Your task to perform on an android device: Open Google Maps Image 0: 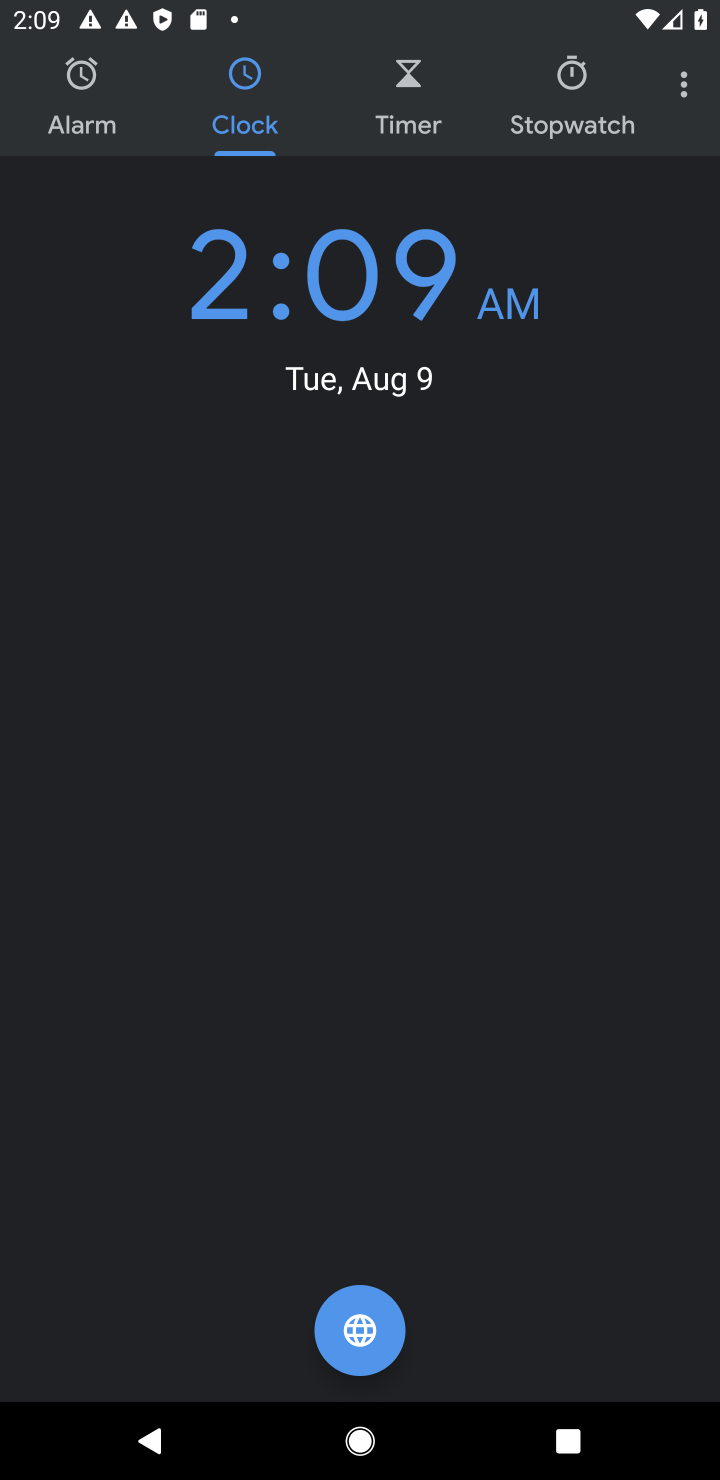
Step 0: press home button
Your task to perform on an android device: Open Google Maps Image 1: 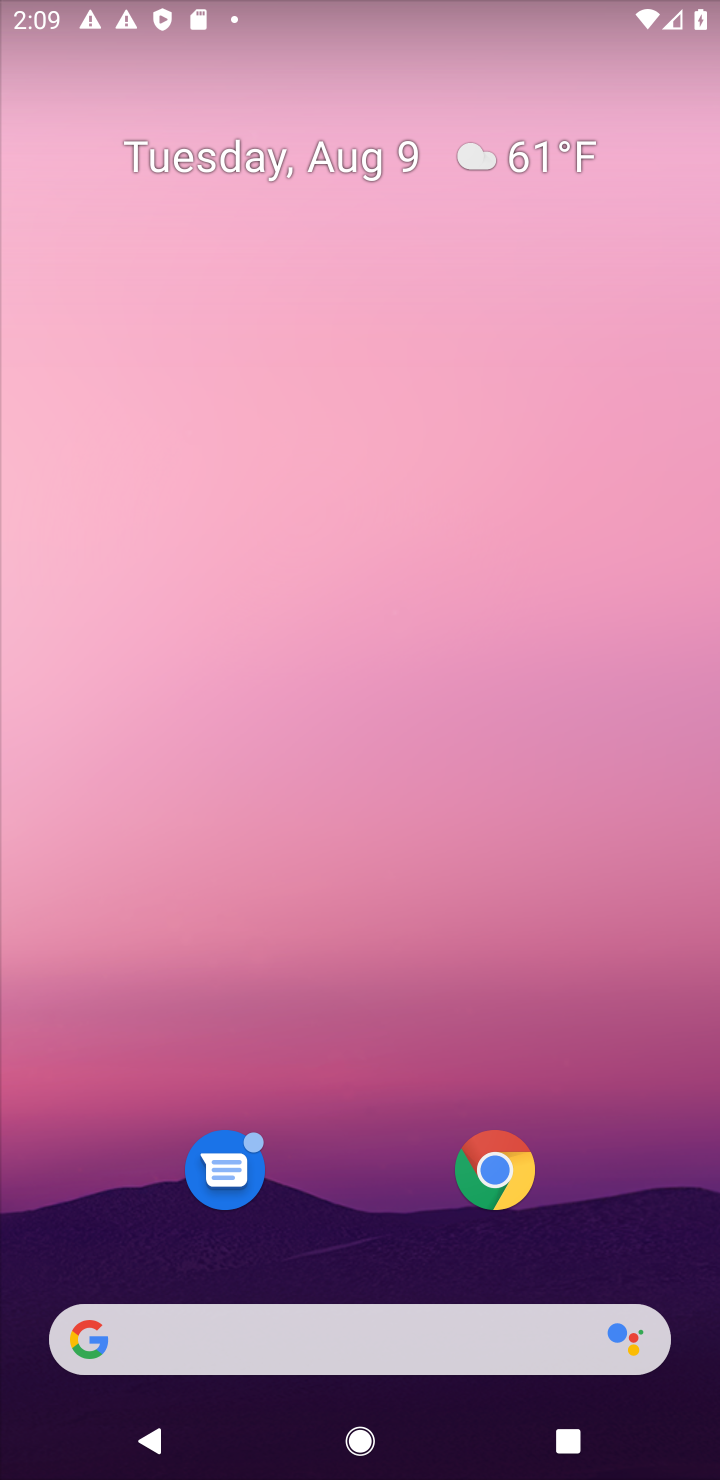
Step 1: drag from (328, 1173) to (234, 1)
Your task to perform on an android device: Open Google Maps Image 2: 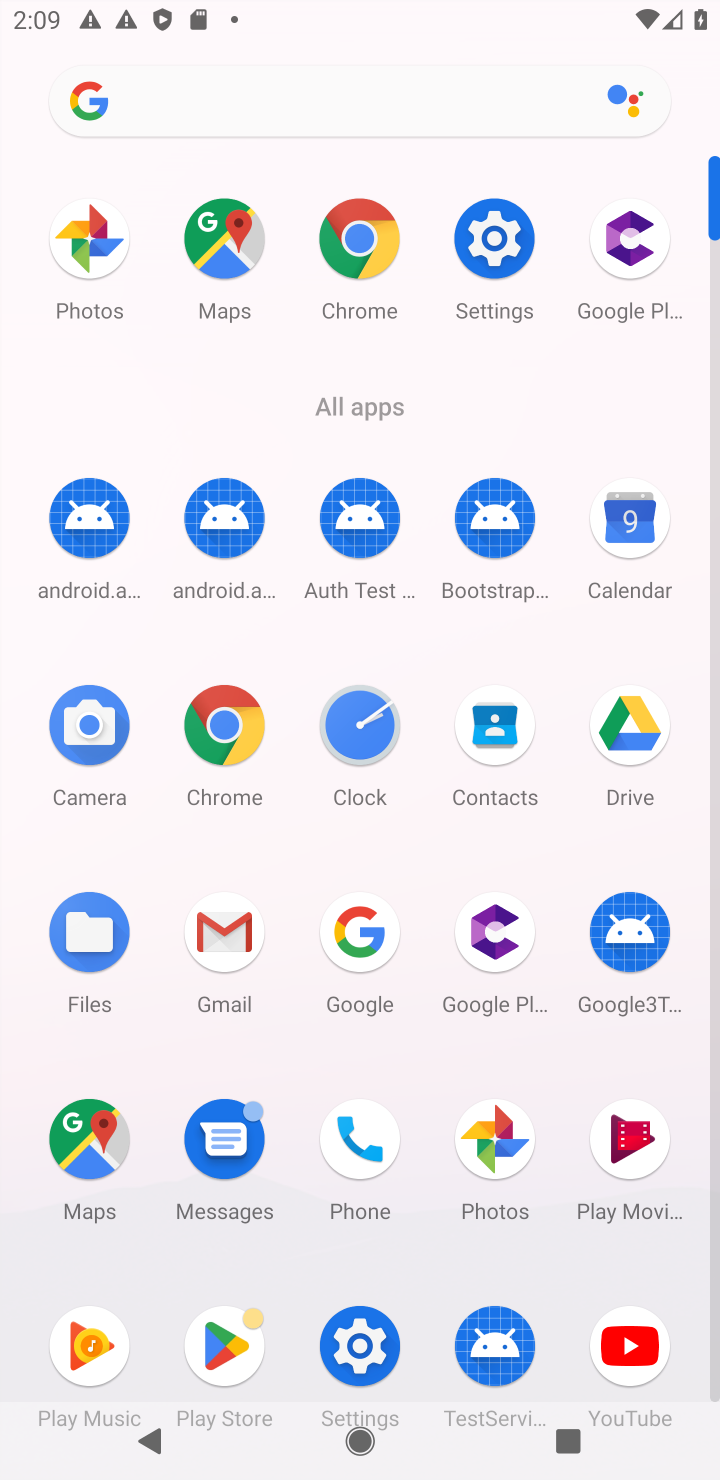
Step 2: click (85, 1160)
Your task to perform on an android device: Open Google Maps Image 3: 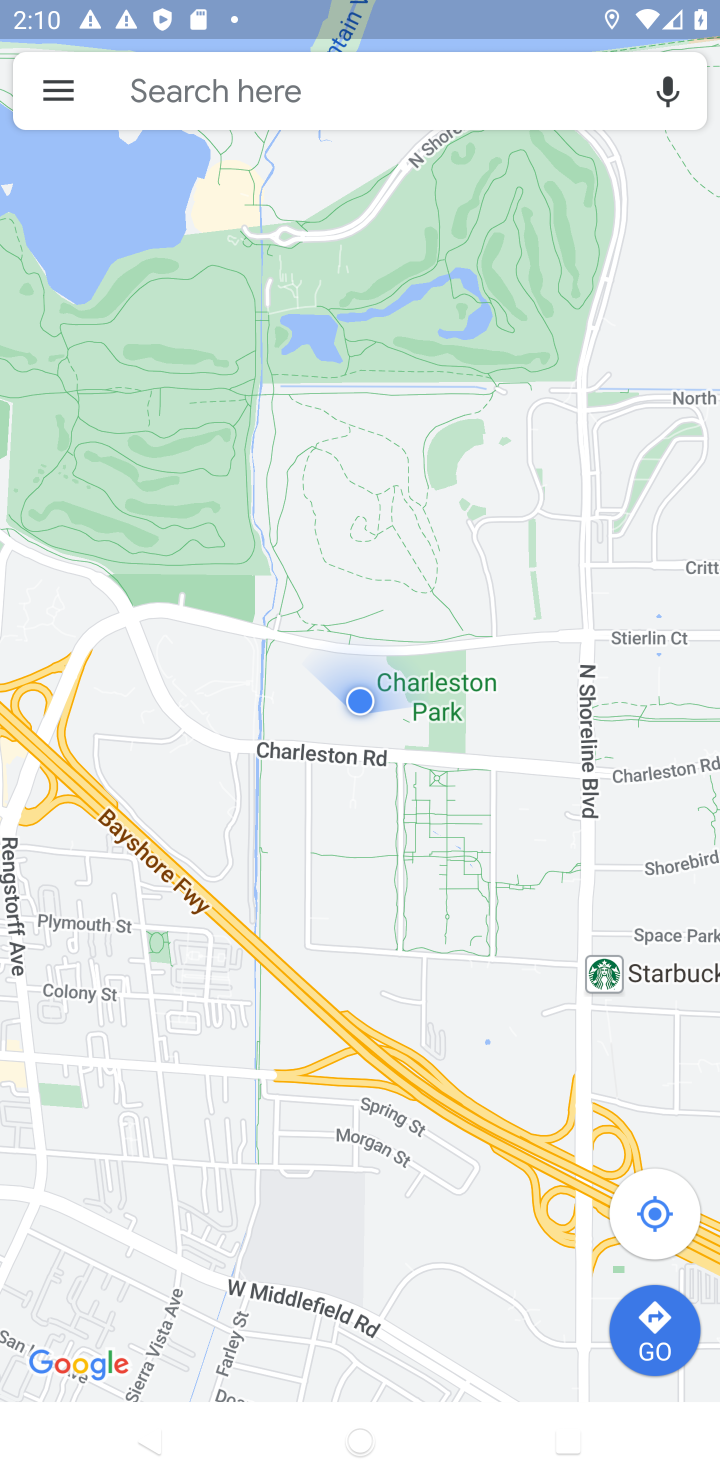
Step 3: task complete